Your task to perform on an android device: delete the emails in spam in the gmail app Image 0: 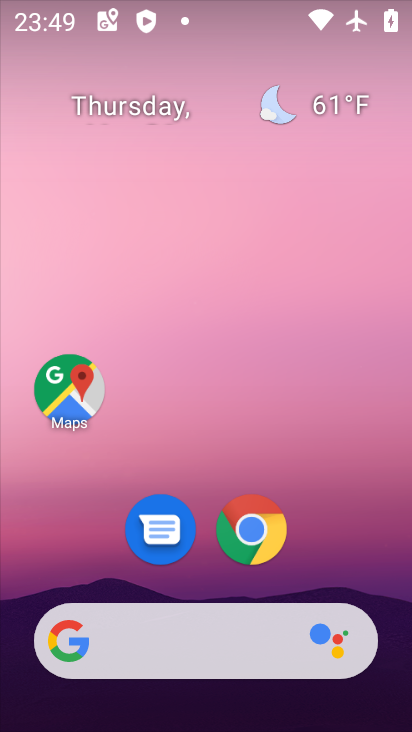
Step 0: drag from (331, 540) to (322, 85)
Your task to perform on an android device: delete the emails in spam in the gmail app Image 1: 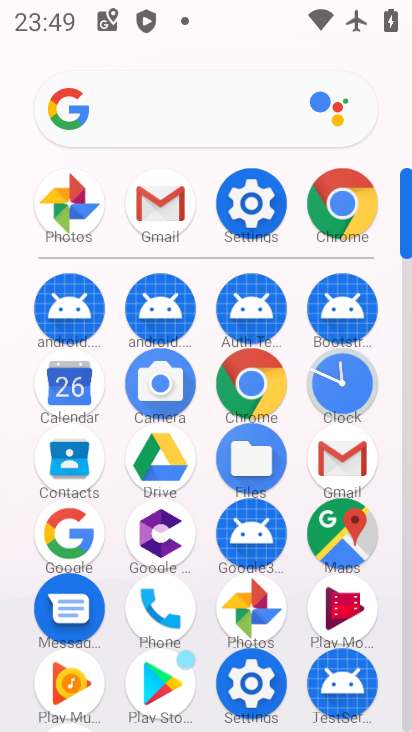
Step 1: click (335, 457)
Your task to perform on an android device: delete the emails in spam in the gmail app Image 2: 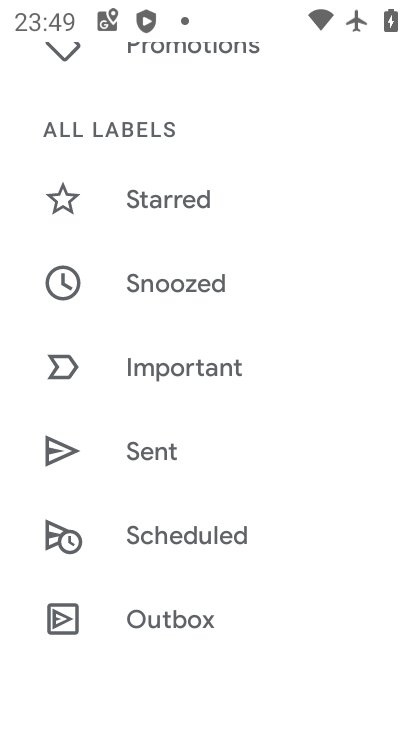
Step 2: task complete